Your task to perform on an android device: find photos in the google photos app Image 0: 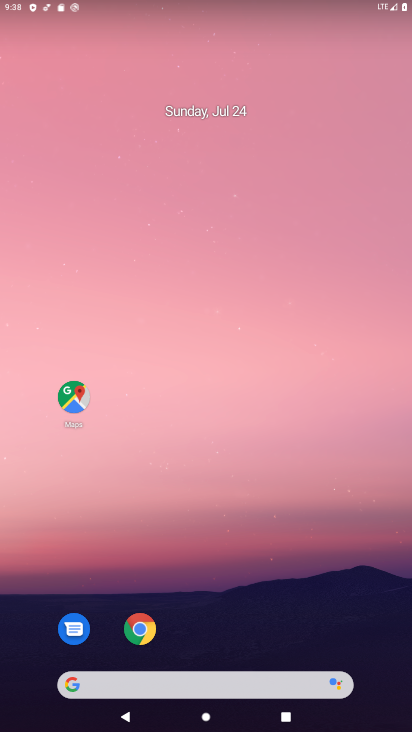
Step 0: press home button
Your task to perform on an android device: find photos in the google photos app Image 1: 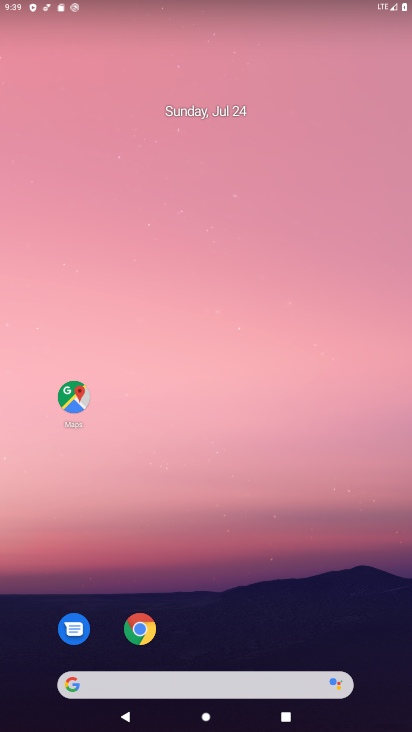
Step 1: drag from (270, 614) to (236, 13)
Your task to perform on an android device: find photos in the google photos app Image 2: 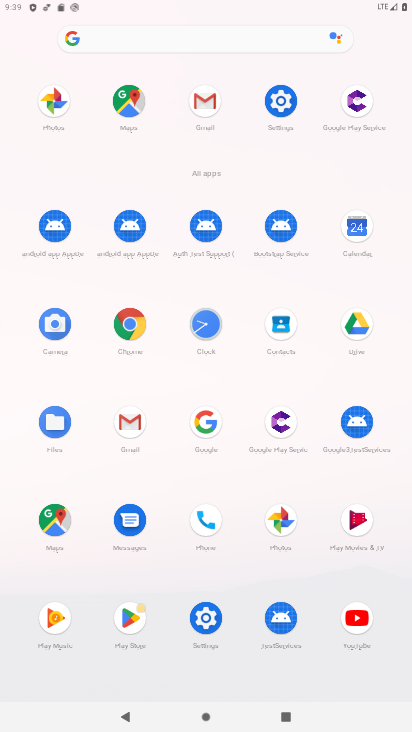
Step 2: click (276, 516)
Your task to perform on an android device: find photos in the google photos app Image 3: 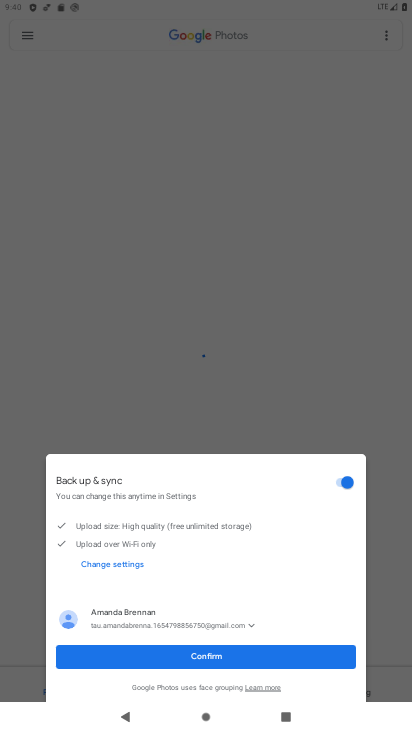
Step 3: click (241, 656)
Your task to perform on an android device: find photos in the google photos app Image 4: 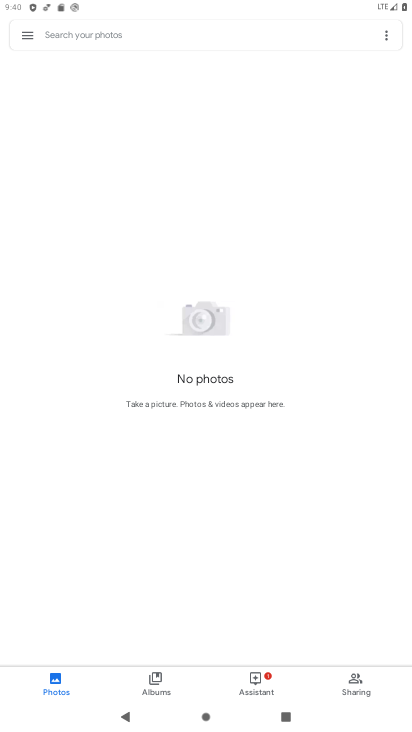
Step 4: task complete